Your task to perform on an android device: What's on my calendar today? Image 0: 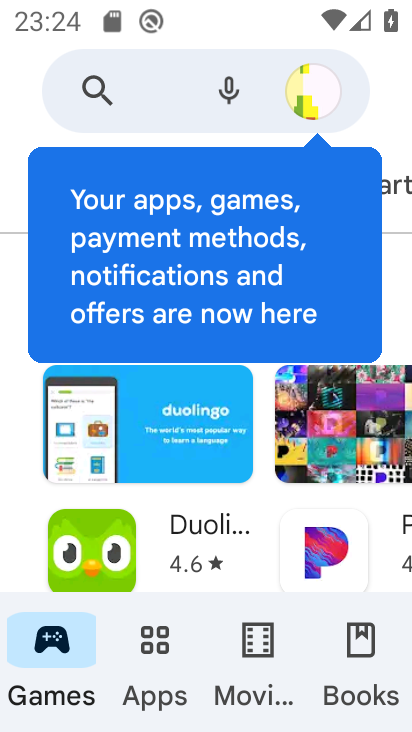
Step 0: press home button
Your task to perform on an android device: What's on my calendar today? Image 1: 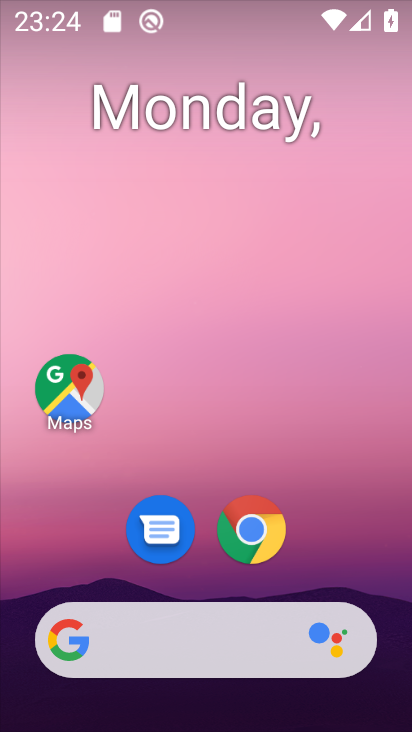
Step 1: drag from (342, 536) to (272, 1)
Your task to perform on an android device: What's on my calendar today? Image 2: 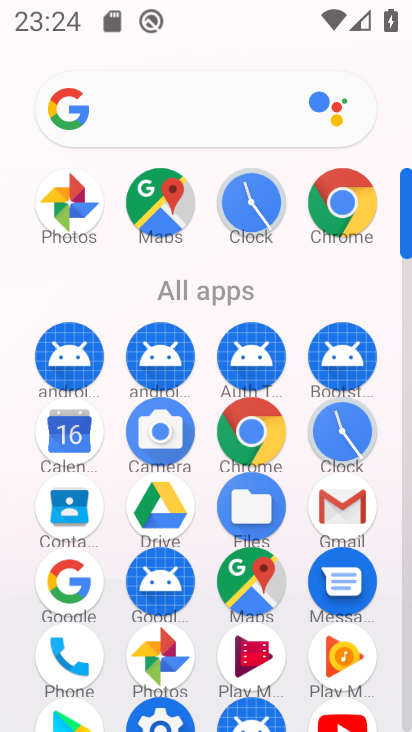
Step 2: click (77, 437)
Your task to perform on an android device: What's on my calendar today? Image 3: 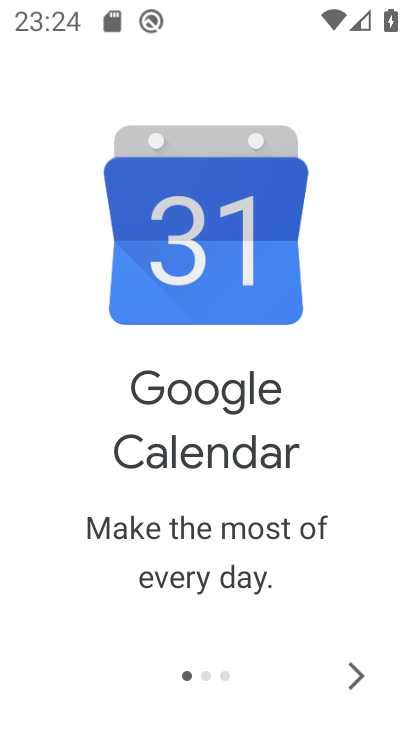
Step 3: click (358, 675)
Your task to perform on an android device: What's on my calendar today? Image 4: 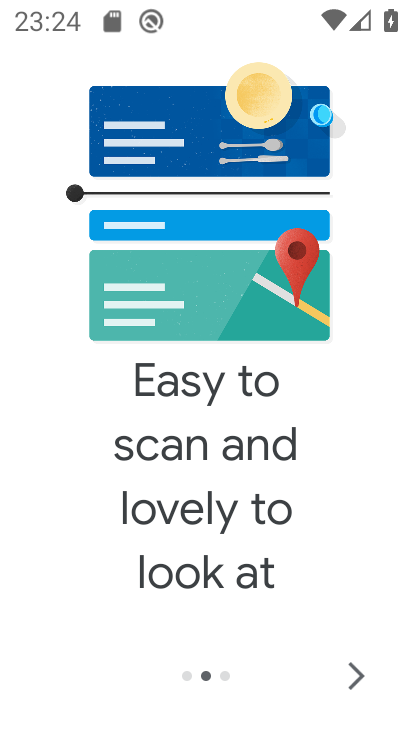
Step 4: click (358, 675)
Your task to perform on an android device: What's on my calendar today? Image 5: 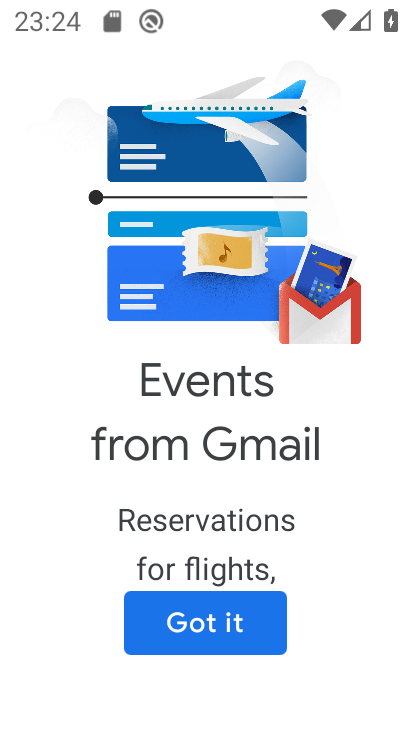
Step 5: click (238, 639)
Your task to perform on an android device: What's on my calendar today? Image 6: 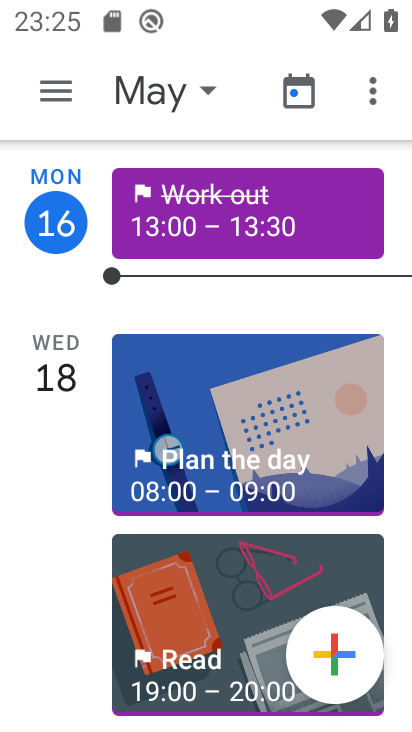
Step 6: click (173, 87)
Your task to perform on an android device: What's on my calendar today? Image 7: 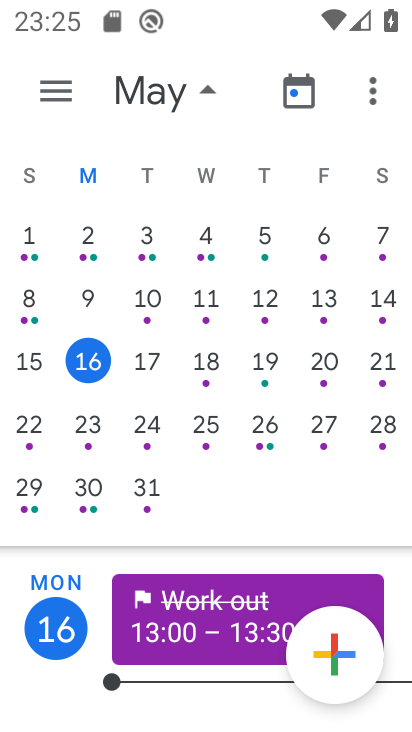
Step 7: click (155, 362)
Your task to perform on an android device: What's on my calendar today? Image 8: 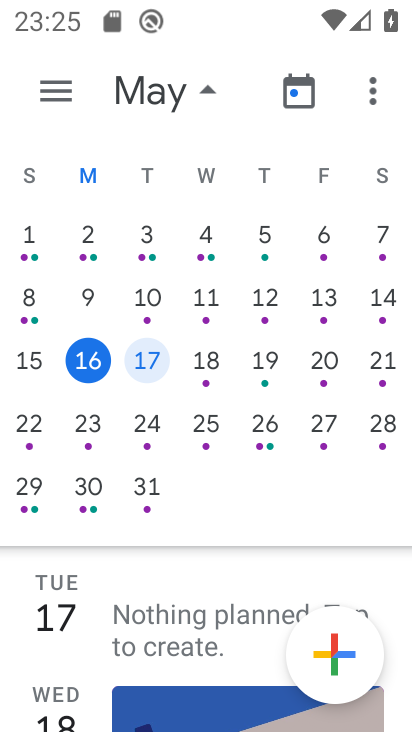
Step 8: task complete